Your task to perform on an android device: toggle show notifications on the lock screen Image 0: 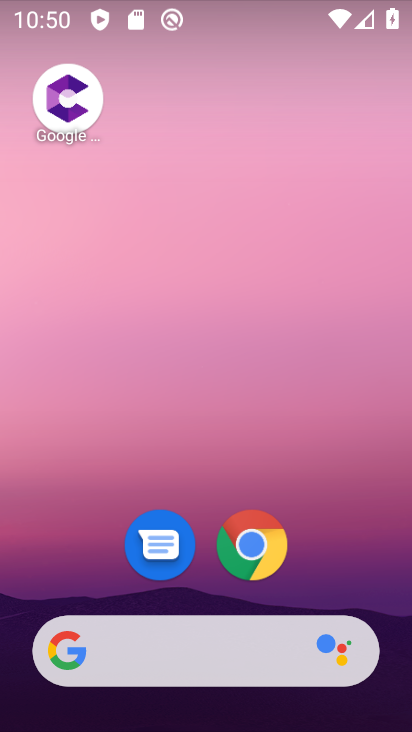
Step 0: drag from (247, 725) to (199, 131)
Your task to perform on an android device: toggle show notifications on the lock screen Image 1: 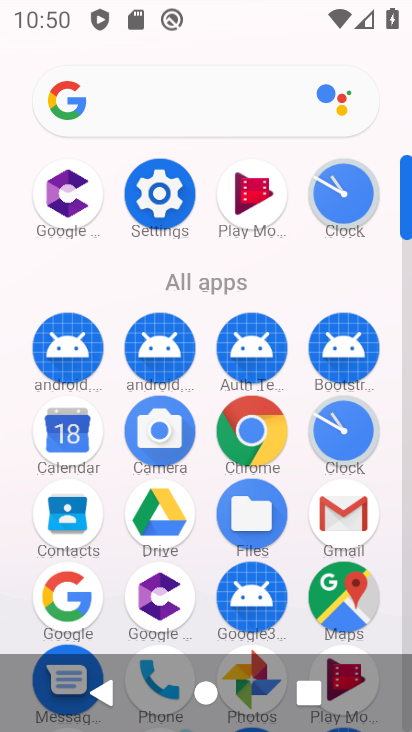
Step 1: click (172, 178)
Your task to perform on an android device: toggle show notifications on the lock screen Image 2: 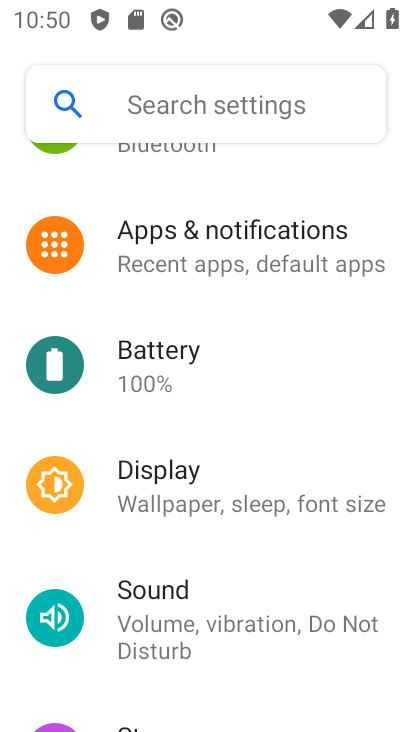
Step 2: click (274, 255)
Your task to perform on an android device: toggle show notifications on the lock screen Image 3: 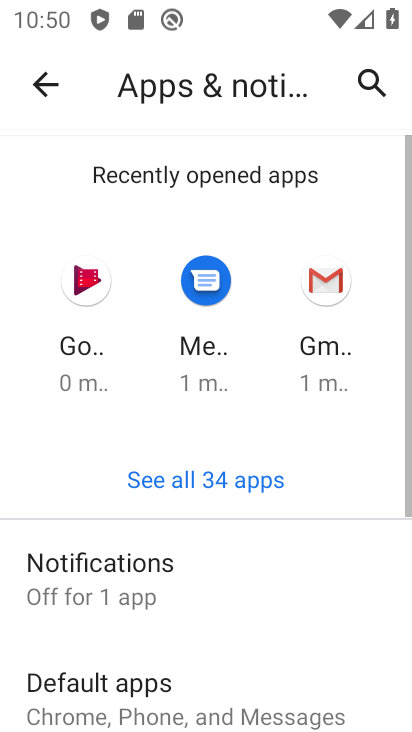
Step 3: drag from (236, 622) to (240, 193)
Your task to perform on an android device: toggle show notifications on the lock screen Image 4: 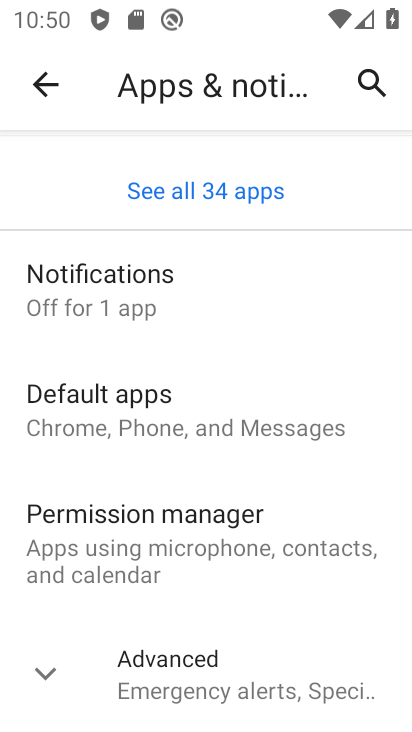
Step 4: click (214, 304)
Your task to perform on an android device: toggle show notifications on the lock screen Image 5: 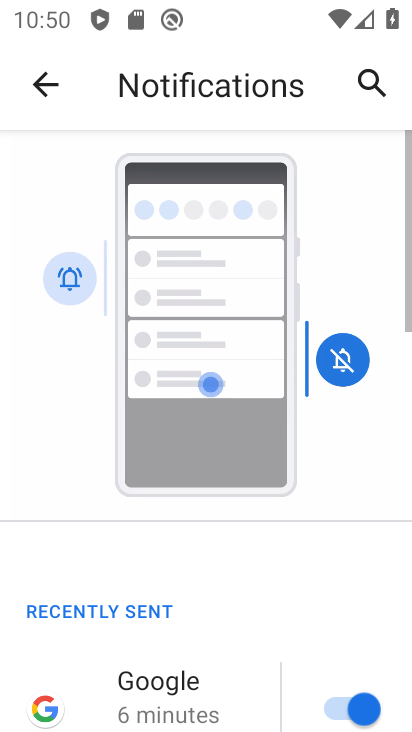
Step 5: drag from (252, 619) to (237, 98)
Your task to perform on an android device: toggle show notifications on the lock screen Image 6: 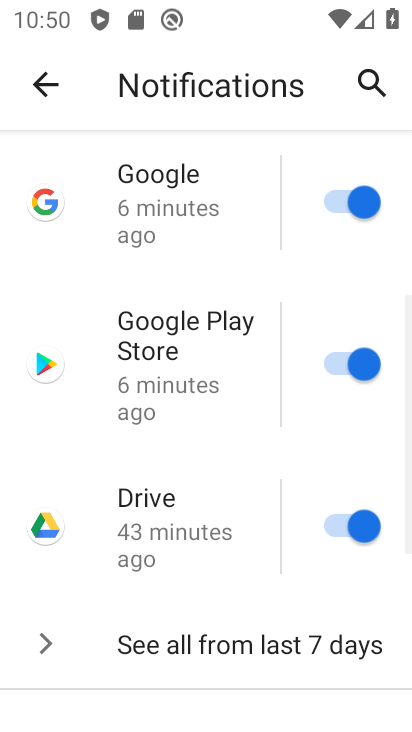
Step 6: drag from (255, 648) to (197, 159)
Your task to perform on an android device: toggle show notifications on the lock screen Image 7: 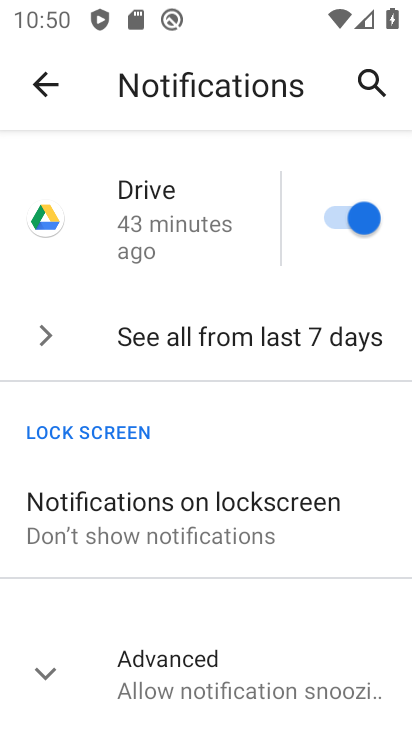
Step 7: click (216, 509)
Your task to perform on an android device: toggle show notifications on the lock screen Image 8: 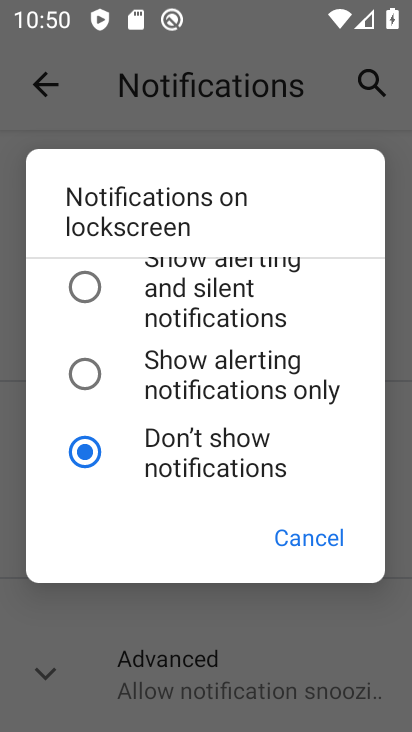
Step 8: click (193, 291)
Your task to perform on an android device: toggle show notifications on the lock screen Image 9: 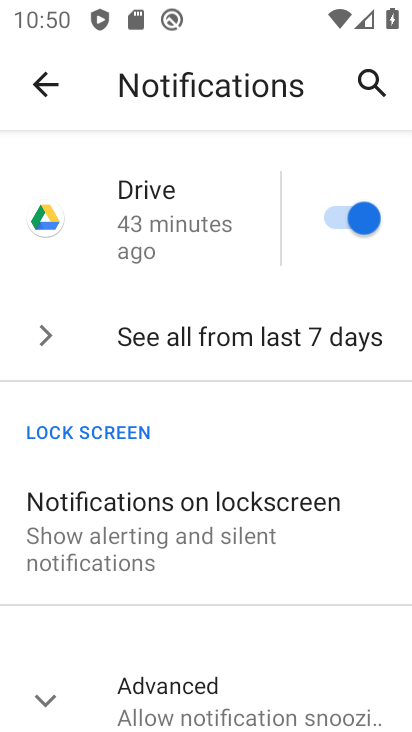
Step 9: task complete